Your task to perform on an android device: empty trash in google photos Image 0: 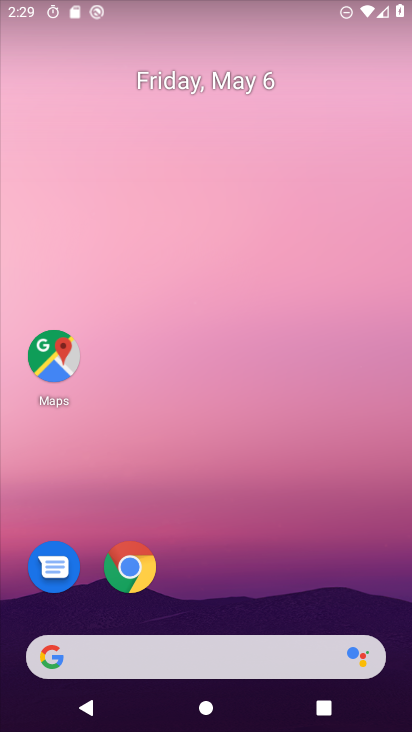
Step 0: drag from (223, 689) to (280, 324)
Your task to perform on an android device: empty trash in google photos Image 1: 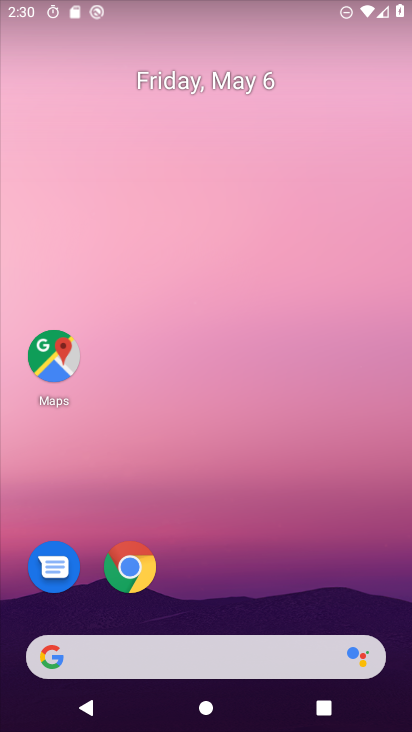
Step 1: drag from (238, 695) to (346, 184)
Your task to perform on an android device: empty trash in google photos Image 2: 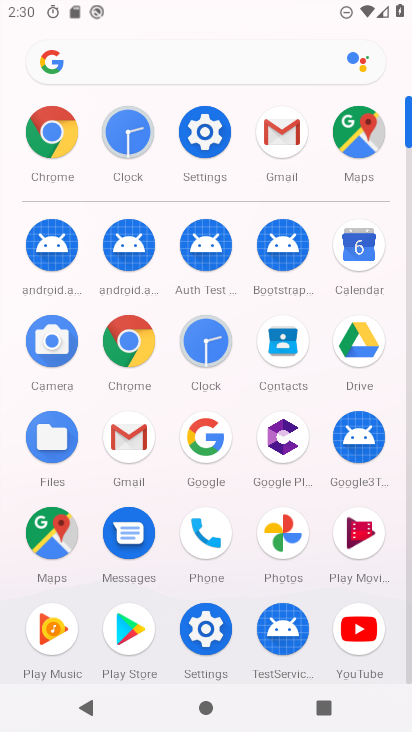
Step 2: click (272, 532)
Your task to perform on an android device: empty trash in google photos Image 3: 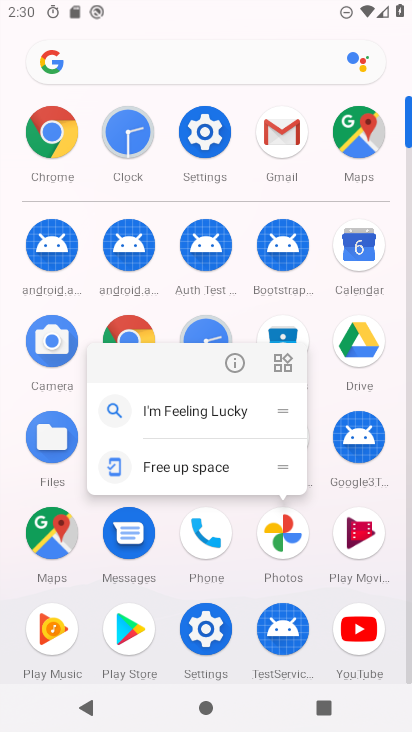
Step 3: click (272, 535)
Your task to perform on an android device: empty trash in google photos Image 4: 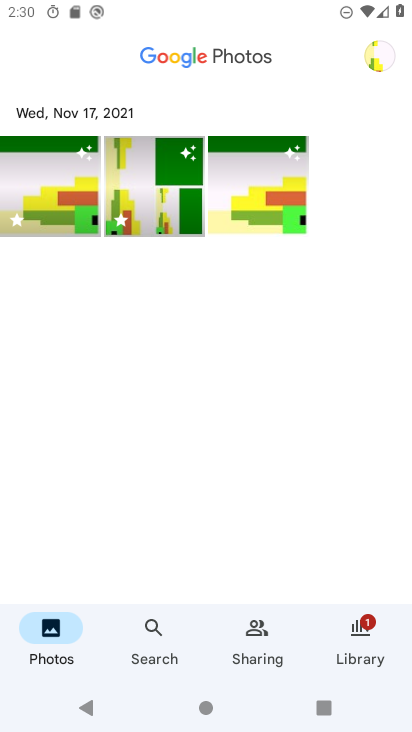
Step 4: click (146, 619)
Your task to perform on an android device: empty trash in google photos Image 5: 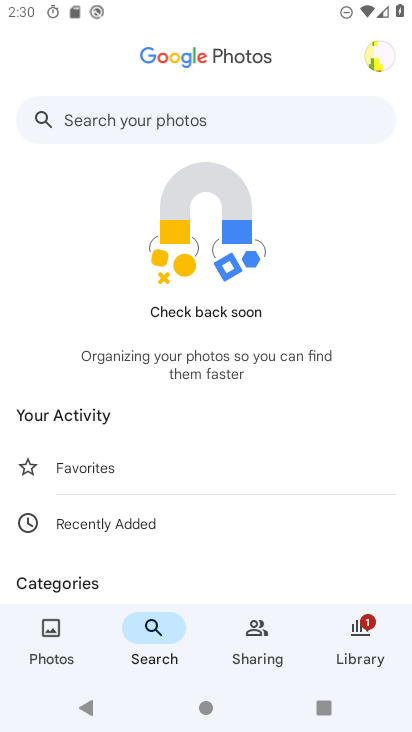
Step 5: click (140, 123)
Your task to perform on an android device: empty trash in google photos Image 6: 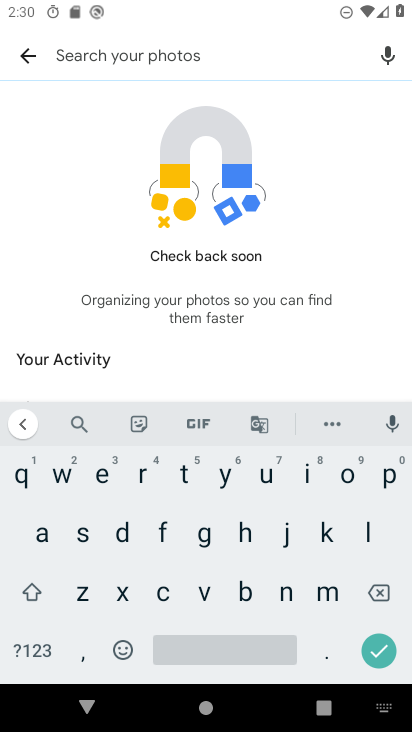
Step 6: click (181, 472)
Your task to perform on an android device: empty trash in google photos Image 7: 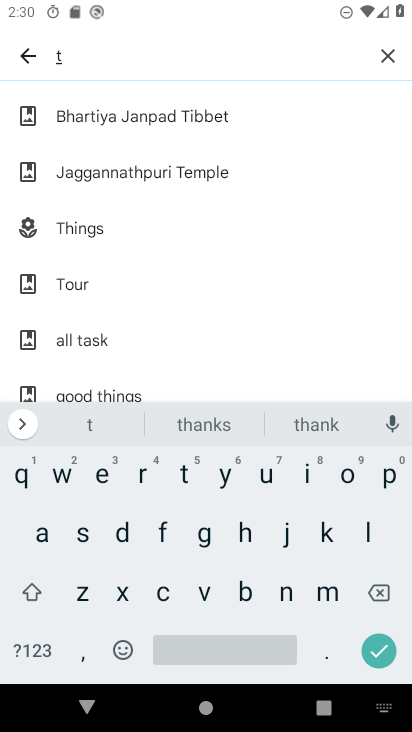
Step 7: click (142, 477)
Your task to perform on an android device: empty trash in google photos Image 8: 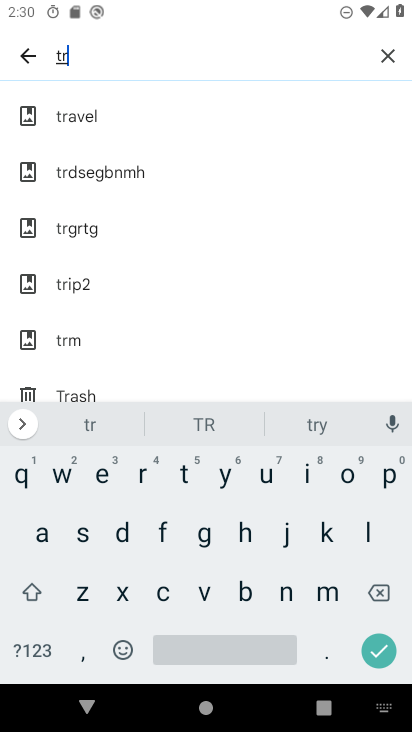
Step 8: click (32, 538)
Your task to perform on an android device: empty trash in google photos Image 9: 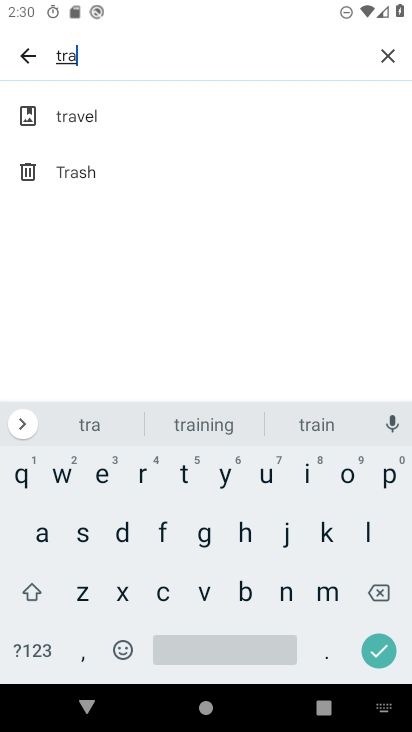
Step 9: click (118, 177)
Your task to perform on an android device: empty trash in google photos Image 10: 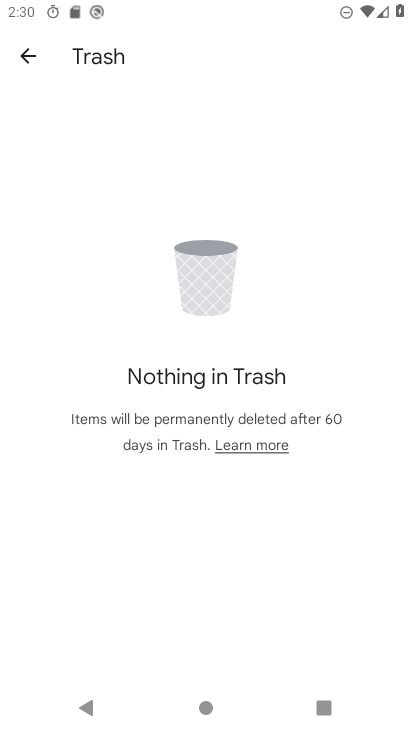
Step 10: task complete